Your task to perform on an android device: Open settings Image 0: 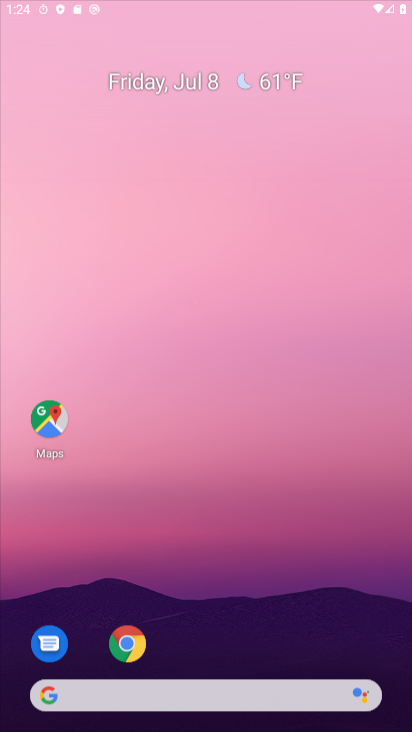
Step 0: press home button
Your task to perform on an android device: Open settings Image 1: 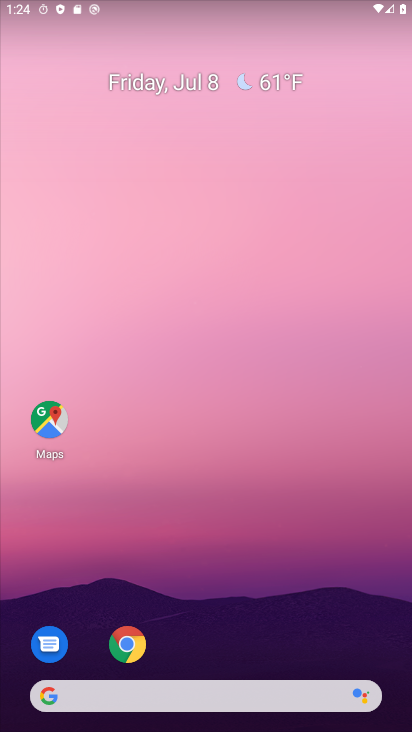
Step 1: drag from (215, 484) to (275, 7)
Your task to perform on an android device: Open settings Image 2: 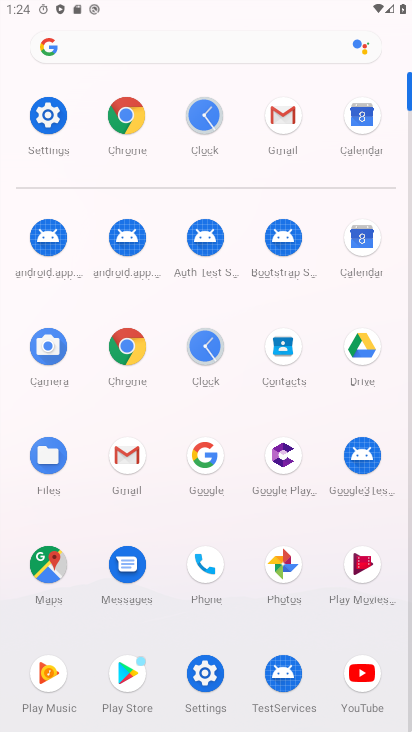
Step 2: click (50, 113)
Your task to perform on an android device: Open settings Image 3: 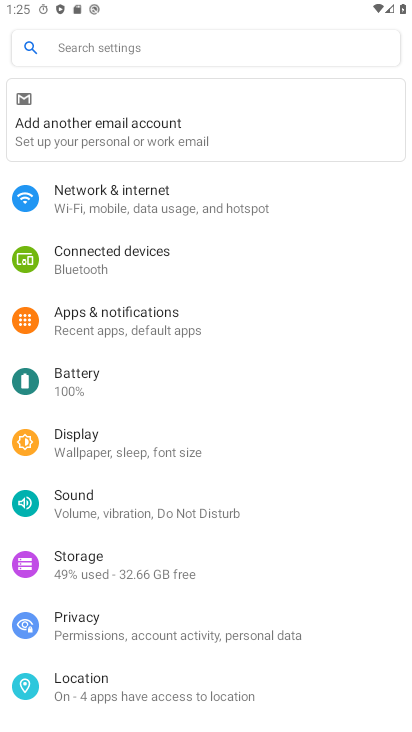
Step 3: task complete